Your task to perform on an android device: Search for pizza restaurants on Maps Image 0: 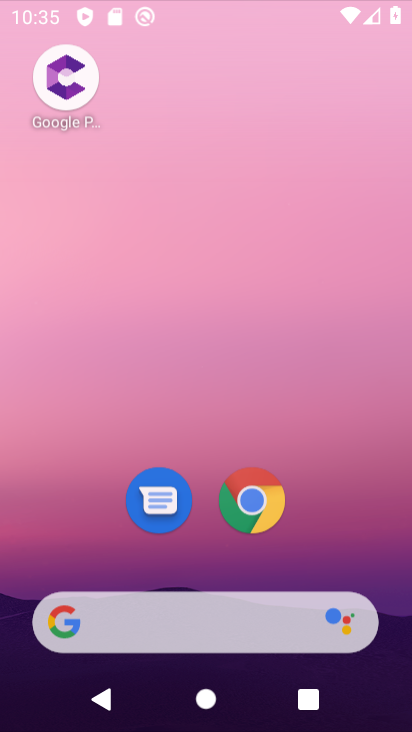
Step 0: click (307, 81)
Your task to perform on an android device: Search for pizza restaurants on Maps Image 1: 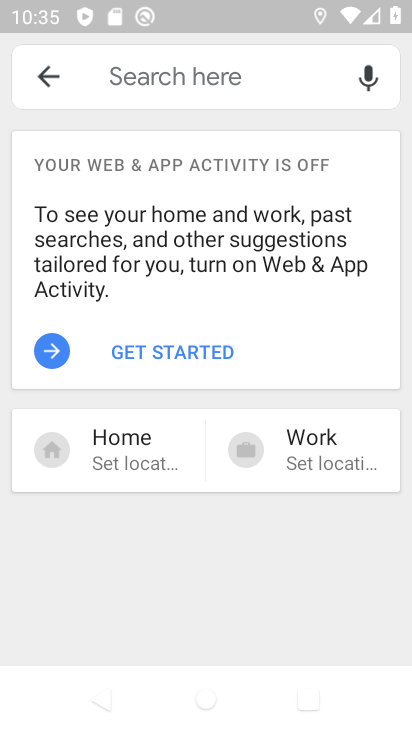
Step 1: press home button
Your task to perform on an android device: Search for pizza restaurants on Maps Image 2: 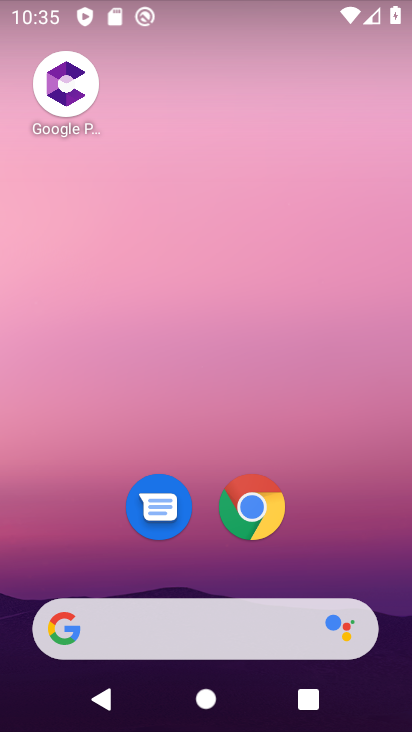
Step 2: drag from (396, 635) to (312, 188)
Your task to perform on an android device: Search for pizza restaurants on Maps Image 3: 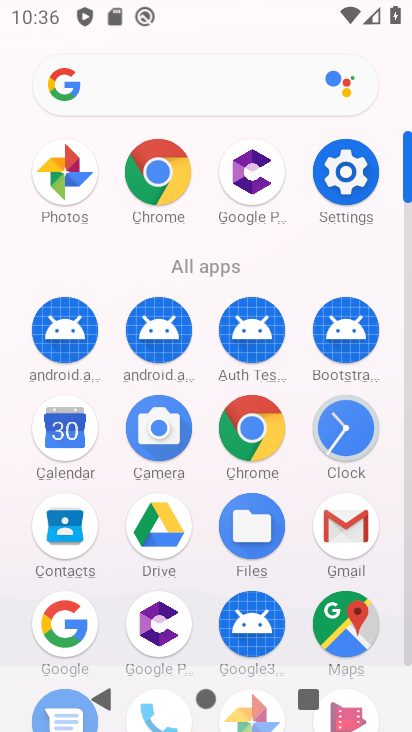
Step 3: click (335, 610)
Your task to perform on an android device: Search for pizza restaurants on Maps Image 4: 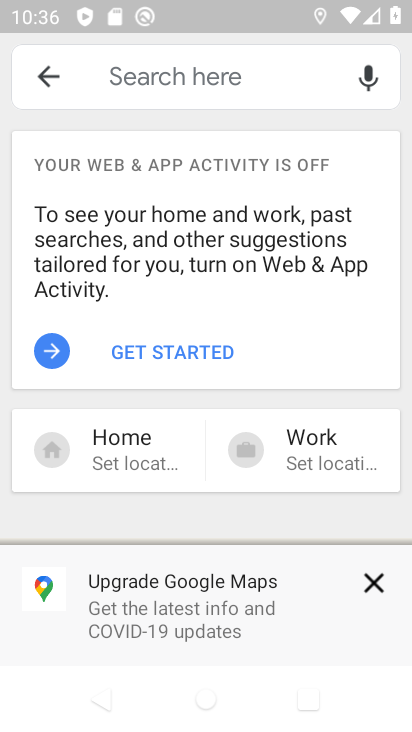
Step 4: click (184, 340)
Your task to perform on an android device: Search for pizza restaurants on Maps Image 5: 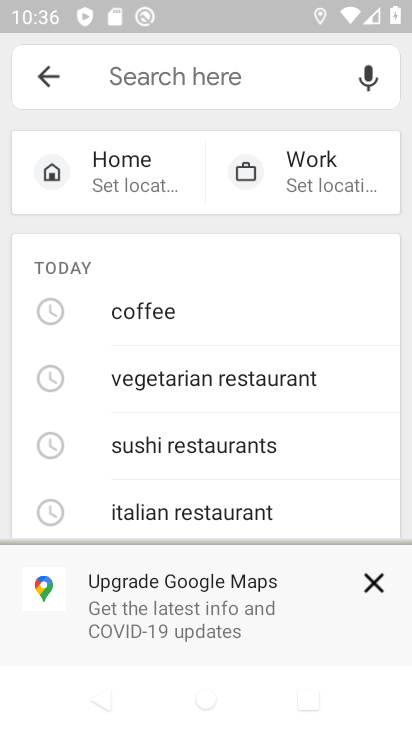
Step 5: drag from (266, 519) to (276, 244)
Your task to perform on an android device: Search for pizza restaurants on Maps Image 6: 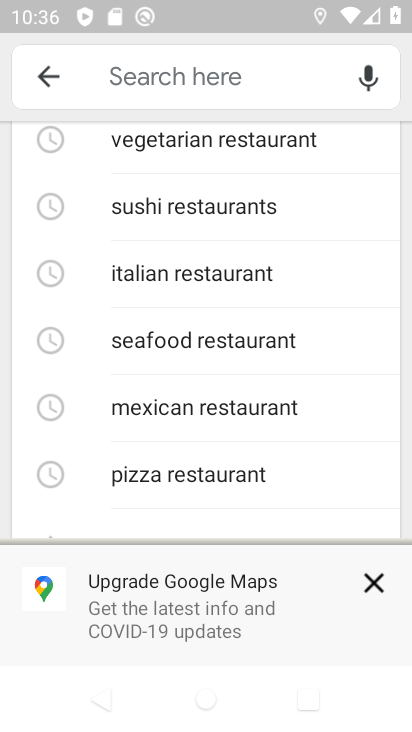
Step 6: click (224, 458)
Your task to perform on an android device: Search for pizza restaurants on Maps Image 7: 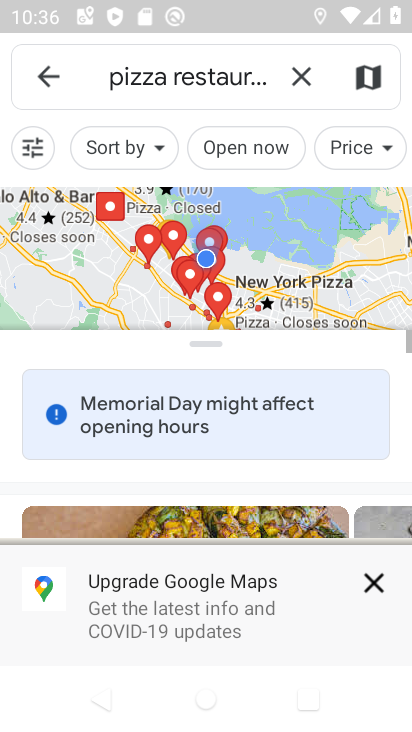
Step 7: task complete